Your task to perform on an android device: toggle pop-ups in chrome Image 0: 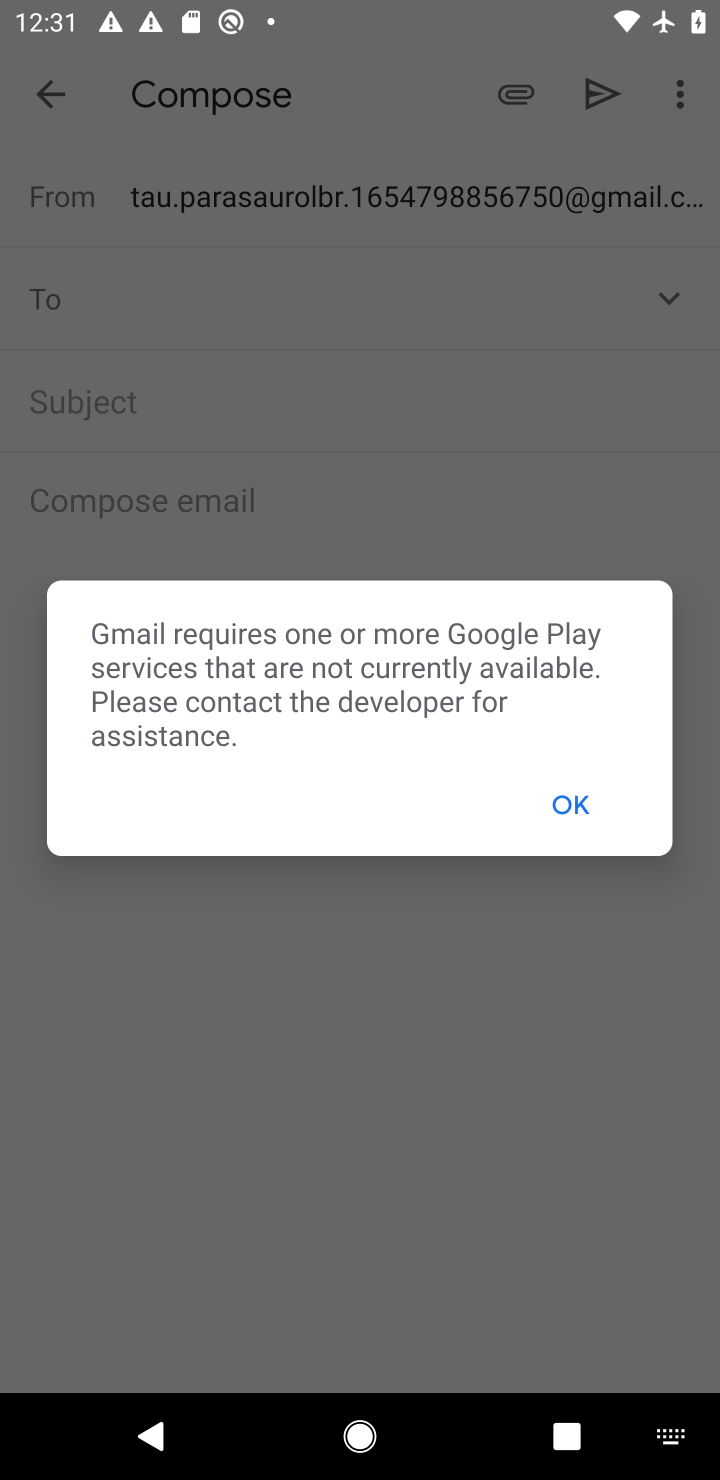
Step 0: press home button
Your task to perform on an android device: toggle pop-ups in chrome Image 1: 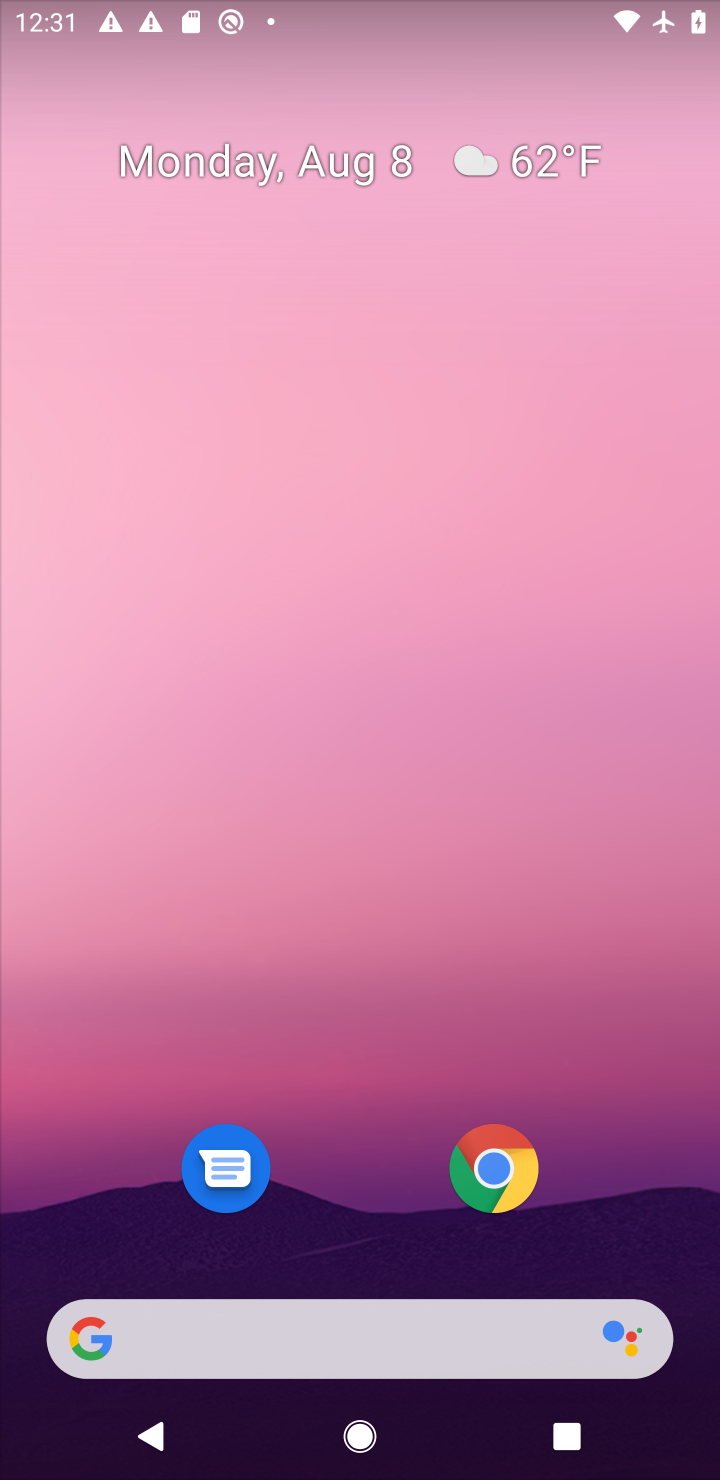
Step 1: click (483, 1133)
Your task to perform on an android device: toggle pop-ups in chrome Image 2: 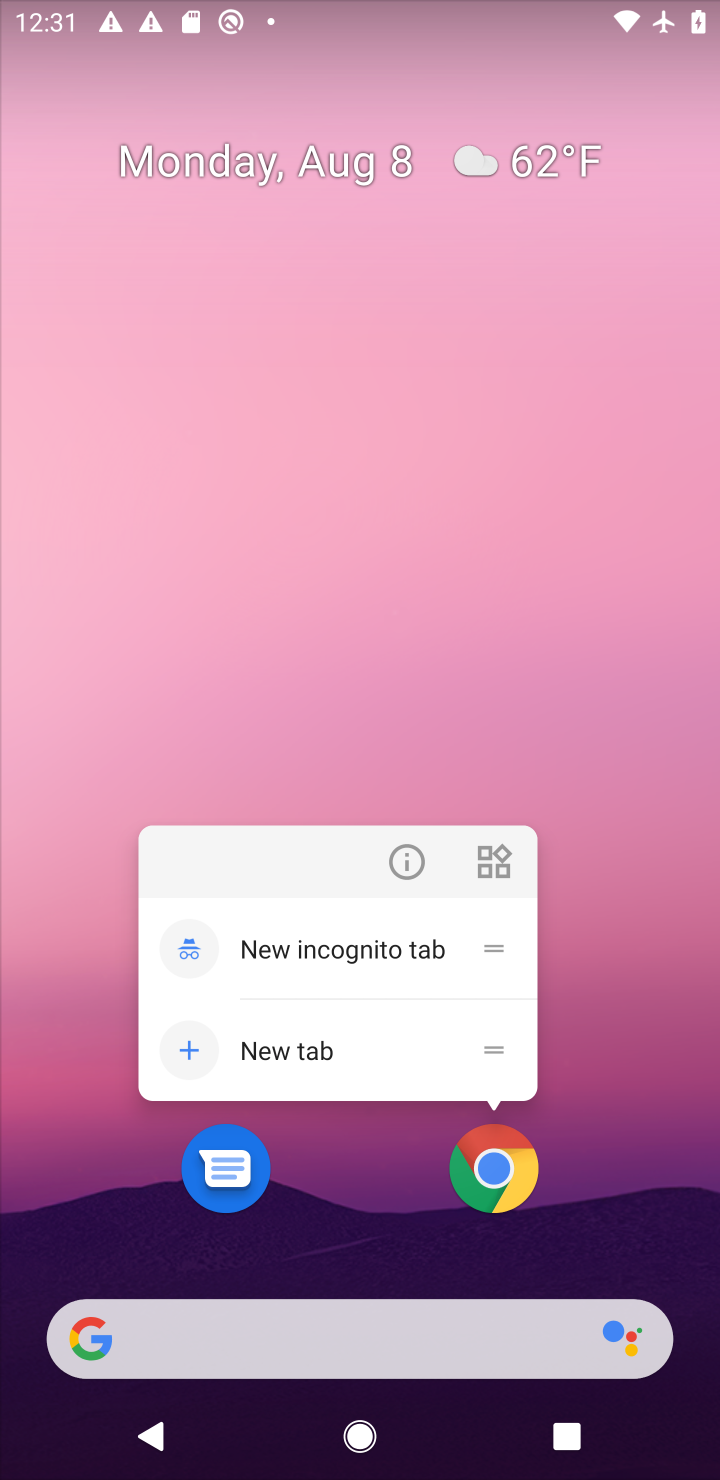
Step 2: click (493, 1164)
Your task to perform on an android device: toggle pop-ups in chrome Image 3: 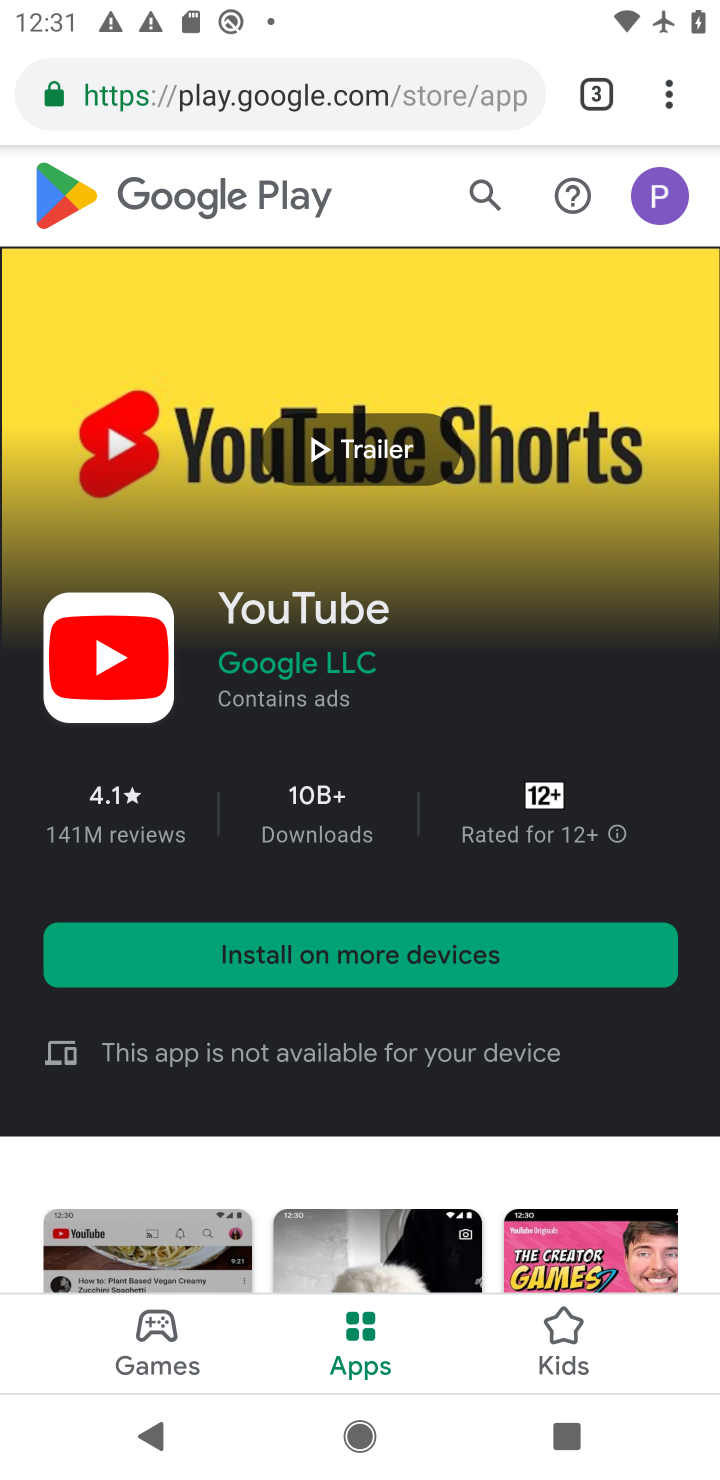
Step 3: click (671, 115)
Your task to perform on an android device: toggle pop-ups in chrome Image 4: 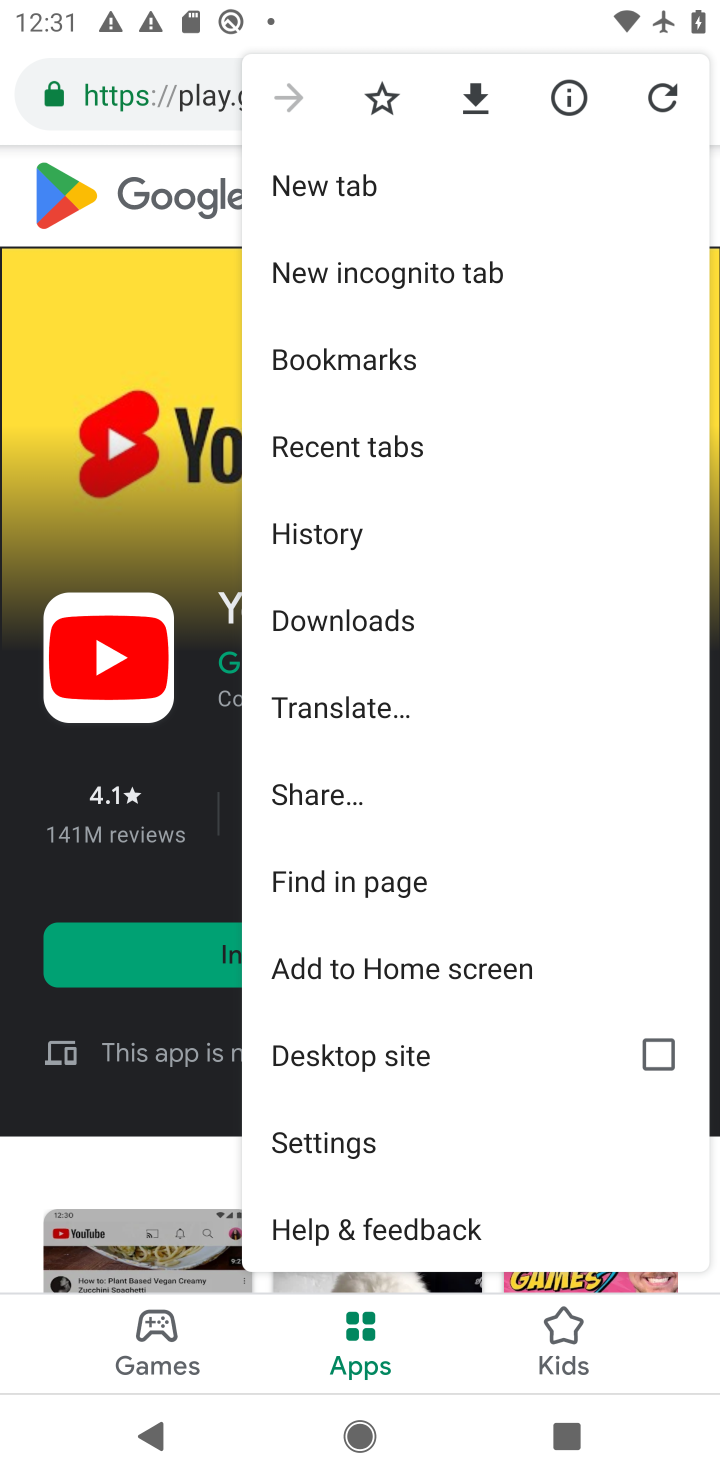
Step 4: click (382, 1164)
Your task to perform on an android device: toggle pop-ups in chrome Image 5: 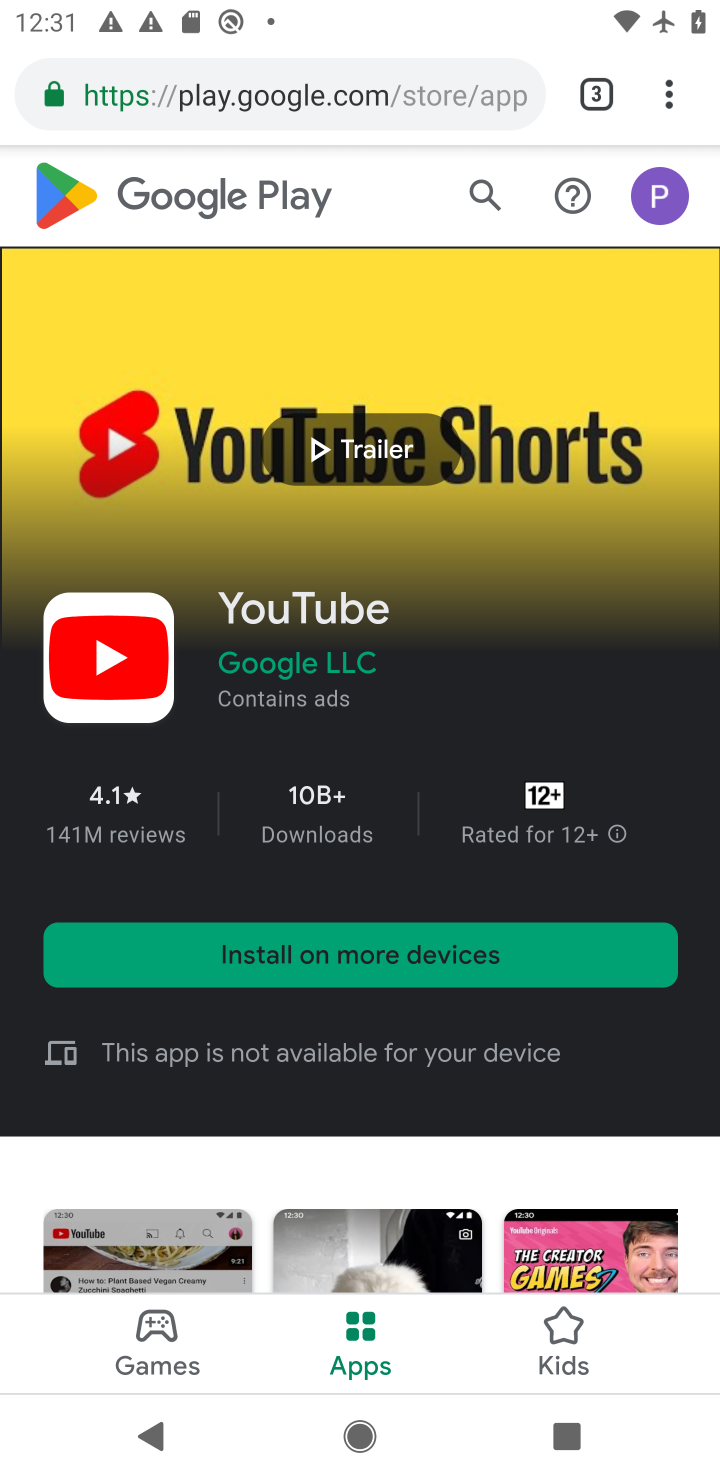
Step 5: task complete